Your task to perform on an android device: Search for corsair k70 on costco, select the first entry, and add it to the cart. Image 0: 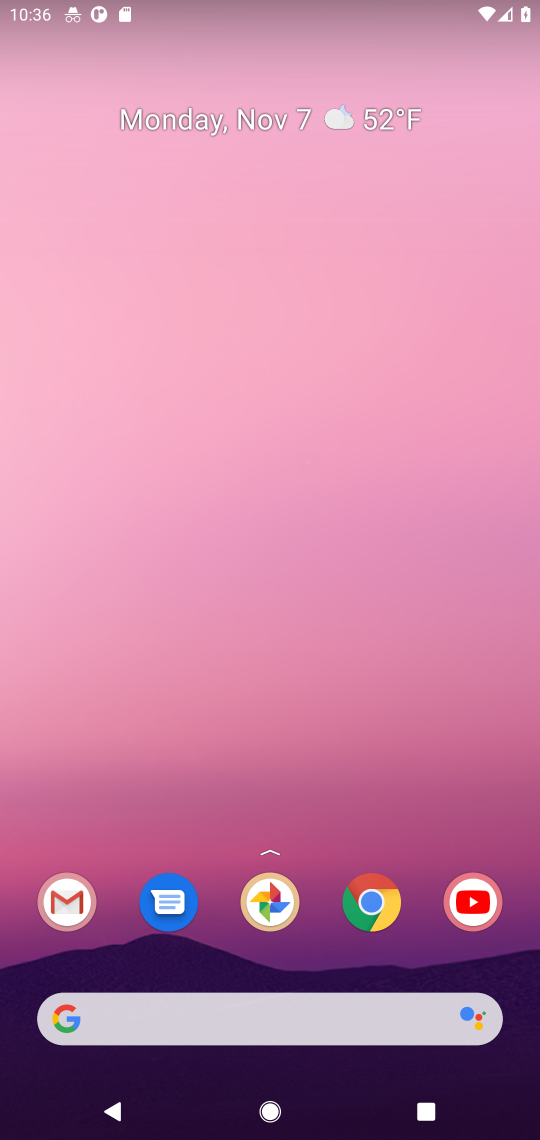
Step 0: click (391, 911)
Your task to perform on an android device: Search for corsair k70 on costco, select the first entry, and add it to the cart. Image 1: 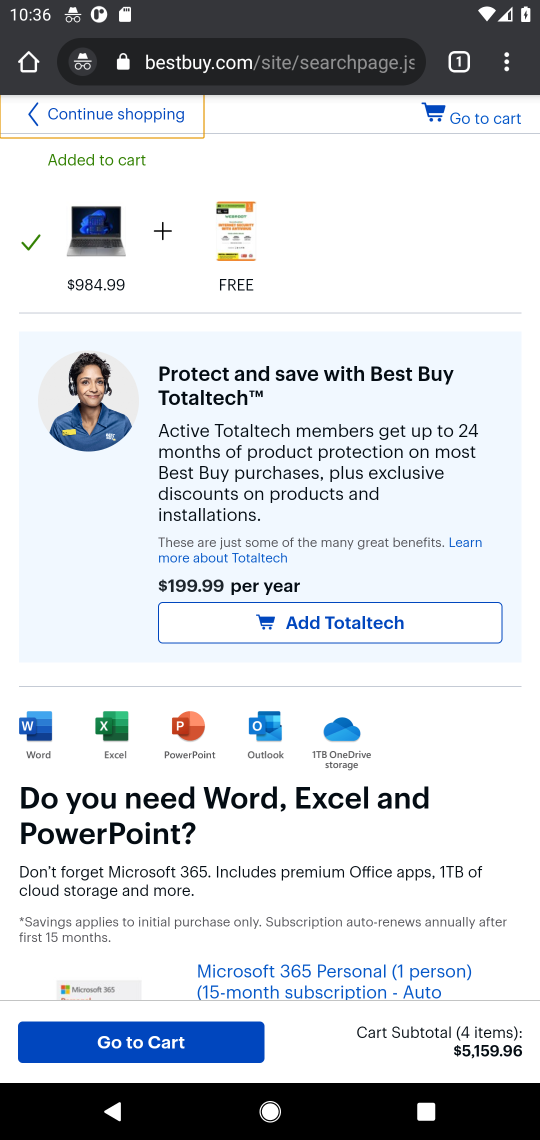
Step 1: click (241, 72)
Your task to perform on an android device: Search for corsair k70 on costco, select the first entry, and add it to the cart. Image 2: 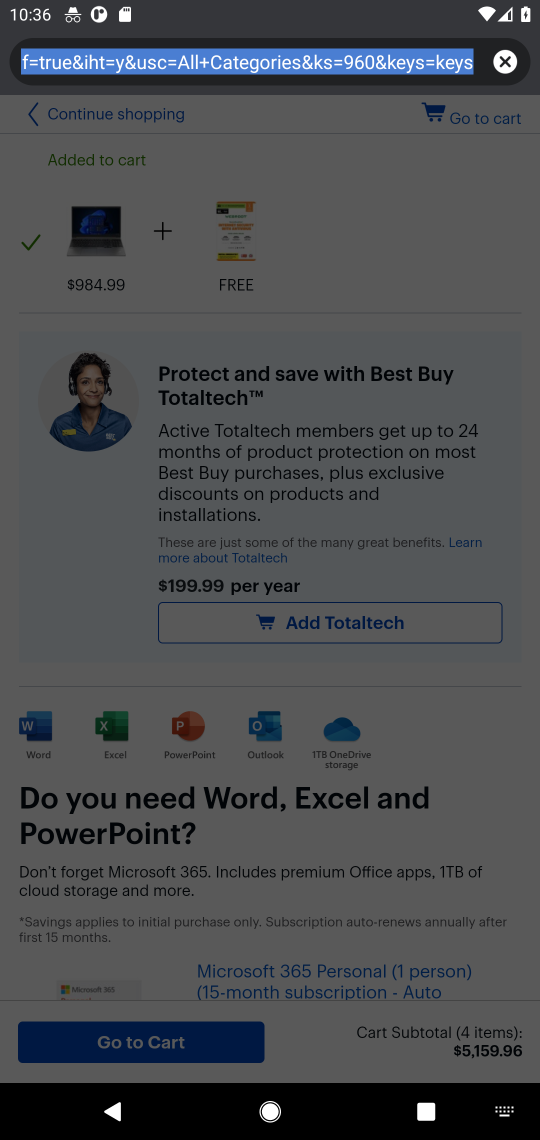
Step 2: type "costco.com"
Your task to perform on an android device: Search for corsair k70 on costco, select the first entry, and add it to the cart. Image 3: 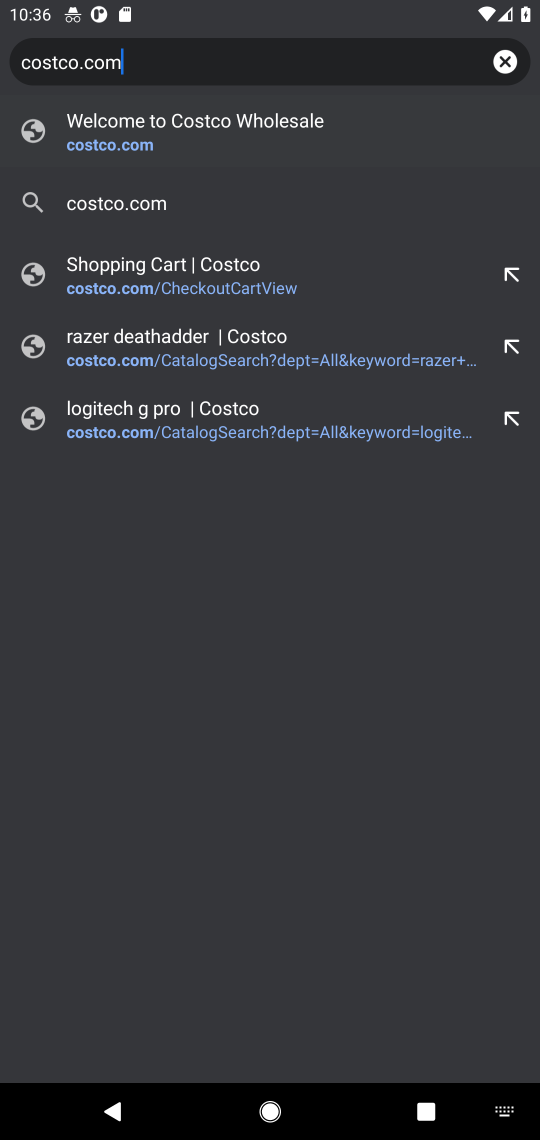
Step 3: click (94, 144)
Your task to perform on an android device: Search for corsair k70 on costco, select the first entry, and add it to the cart. Image 4: 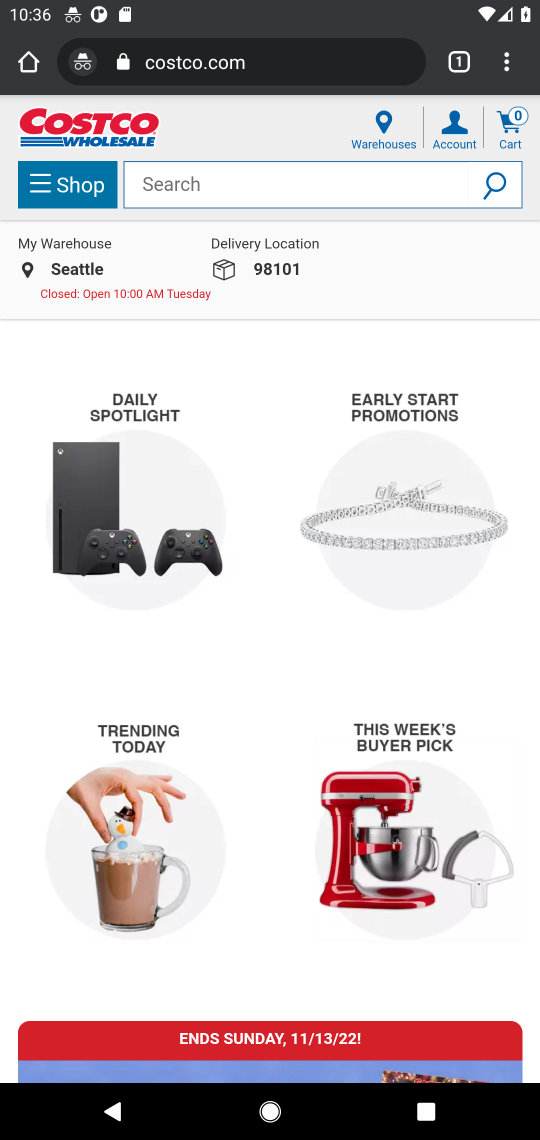
Step 4: click (236, 190)
Your task to perform on an android device: Search for corsair k70 on costco, select the first entry, and add it to the cart. Image 5: 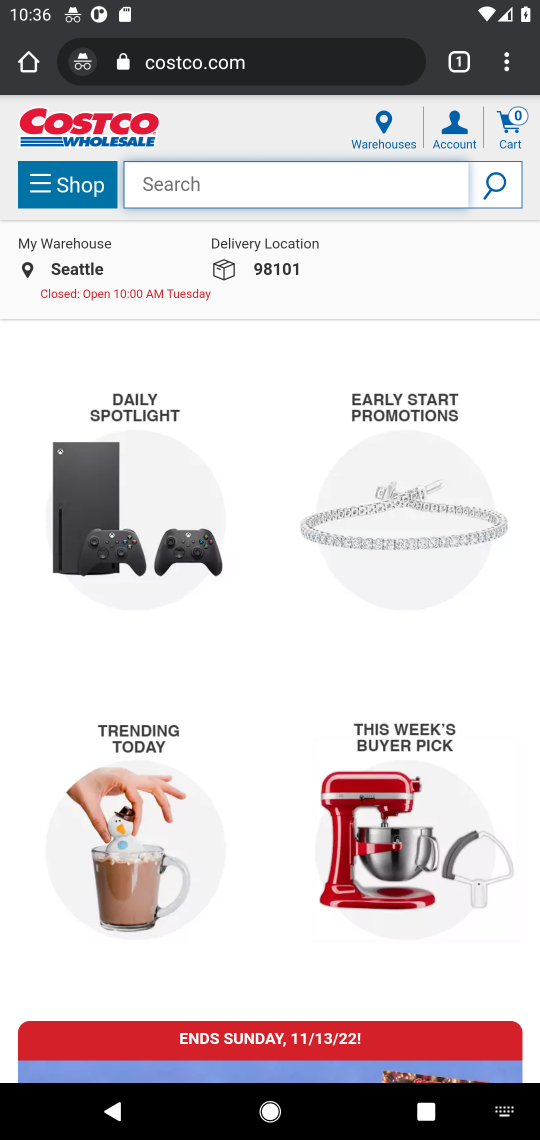
Step 5: type "corsair k70"
Your task to perform on an android device: Search for corsair k70 on costco, select the first entry, and add it to the cart. Image 6: 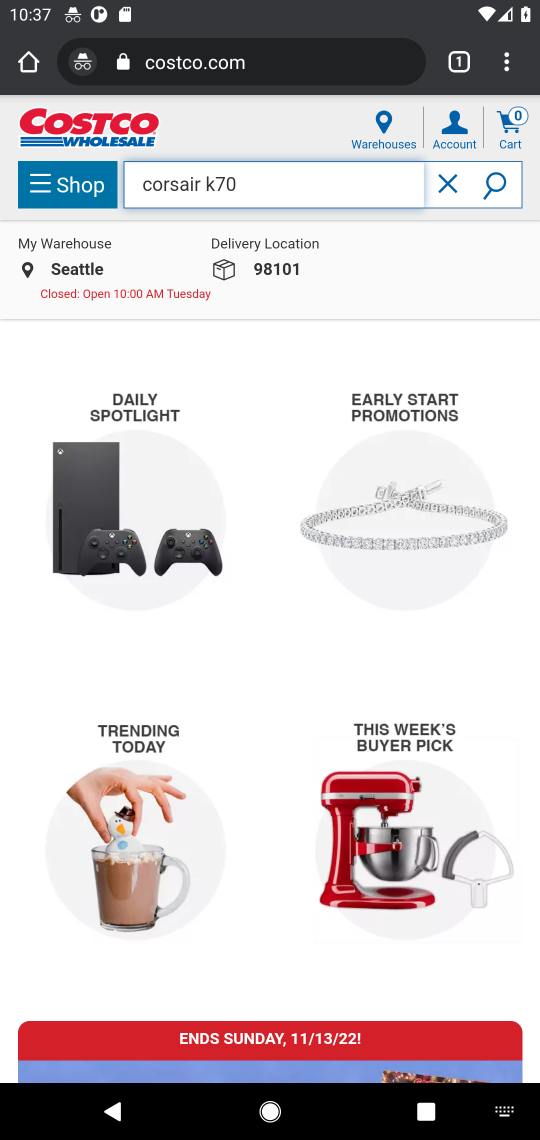
Step 6: click (503, 179)
Your task to perform on an android device: Search for corsair k70 on costco, select the first entry, and add it to the cart. Image 7: 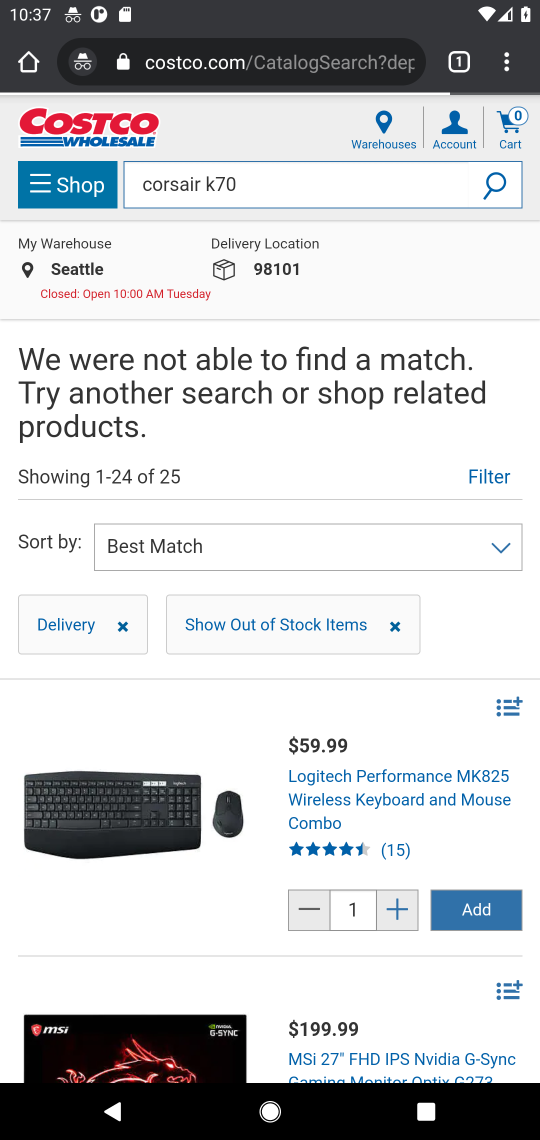
Step 7: task complete